Your task to perform on an android device: Open accessibility settings Image 0: 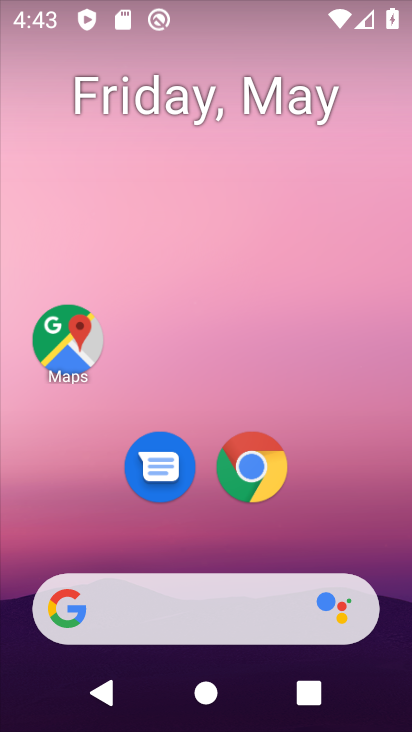
Step 0: drag from (361, 503) to (374, 17)
Your task to perform on an android device: Open accessibility settings Image 1: 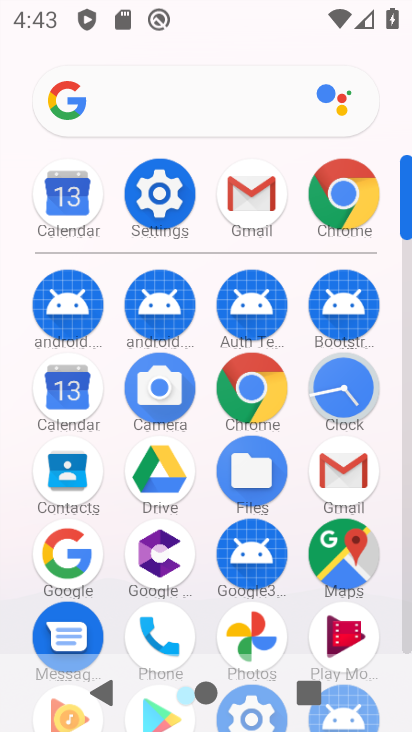
Step 1: click (166, 199)
Your task to perform on an android device: Open accessibility settings Image 2: 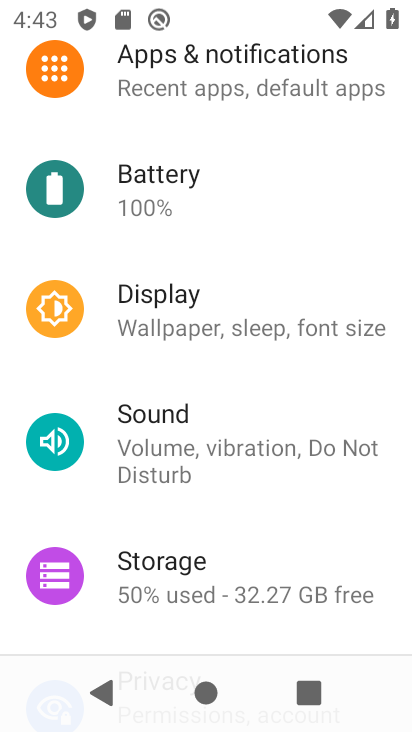
Step 2: drag from (247, 618) to (297, 22)
Your task to perform on an android device: Open accessibility settings Image 3: 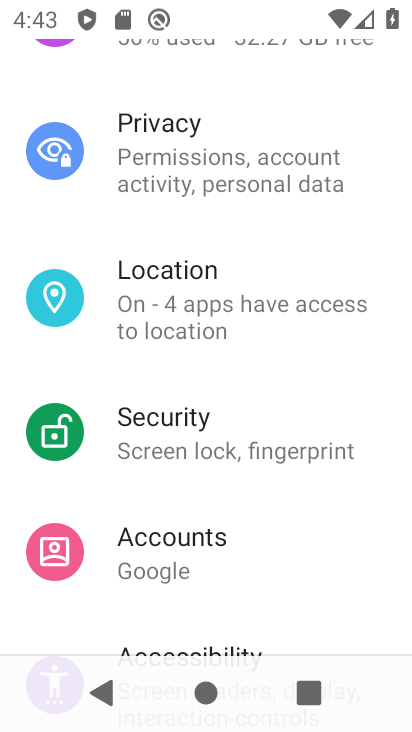
Step 3: drag from (256, 434) to (325, 64)
Your task to perform on an android device: Open accessibility settings Image 4: 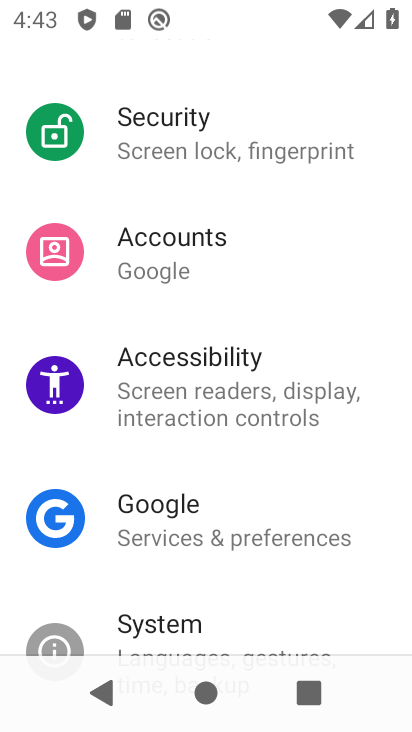
Step 4: click (194, 414)
Your task to perform on an android device: Open accessibility settings Image 5: 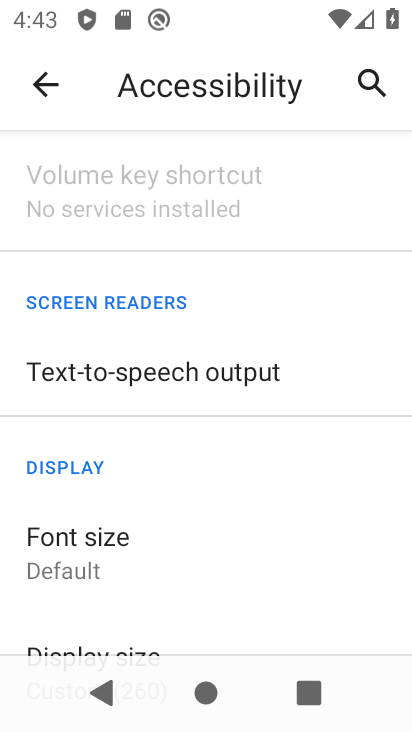
Step 5: task complete